Your task to perform on an android device: toggle improve location accuracy Image 0: 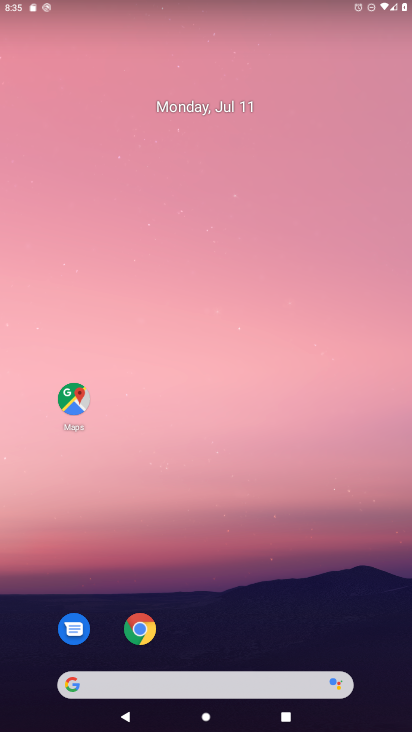
Step 0: drag from (228, 609) to (230, 73)
Your task to perform on an android device: toggle improve location accuracy Image 1: 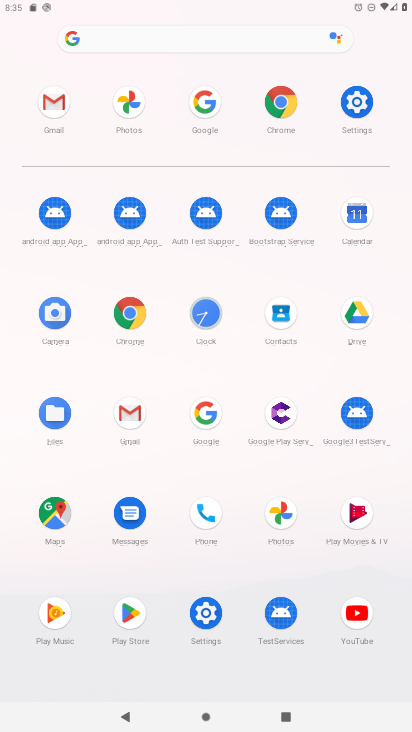
Step 1: click (359, 108)
Your task to perform on an android device: toggle improve location accuracy Image 2: 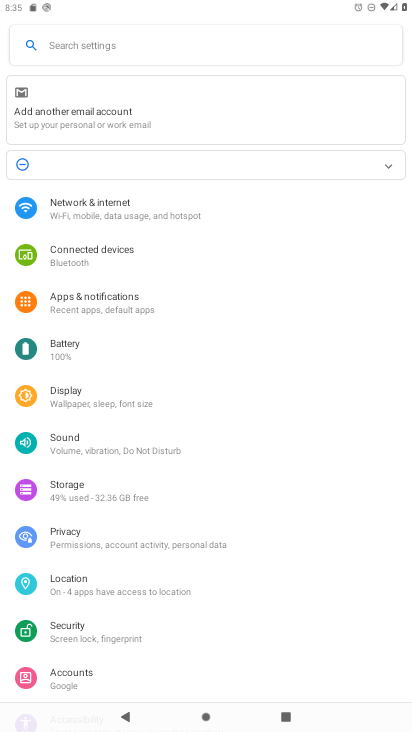
Step 2: click (83, 587)
Your task to perform on an android device: toggle improve location accuracy Image 3: 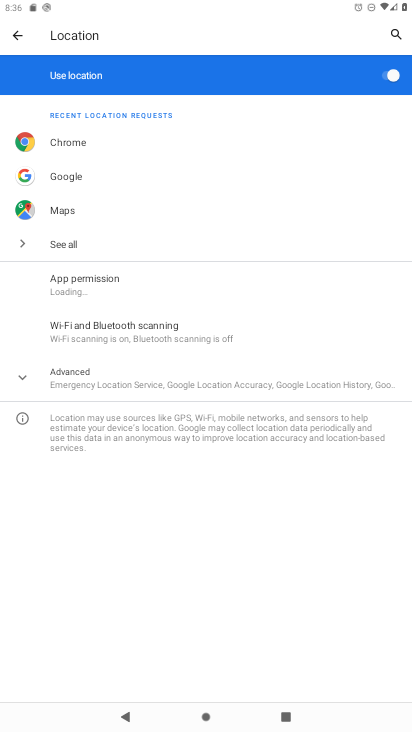
Step 3: click (96, 381)
Your task to perform on an android device: toggle improve location accuracy Image 4: 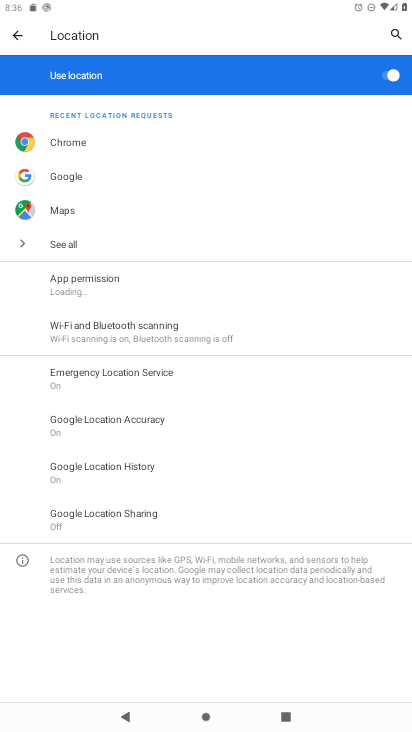
Step 4: click (158, 425)
Your task to perform on an android device: toggle improve location accuracy Image 5: 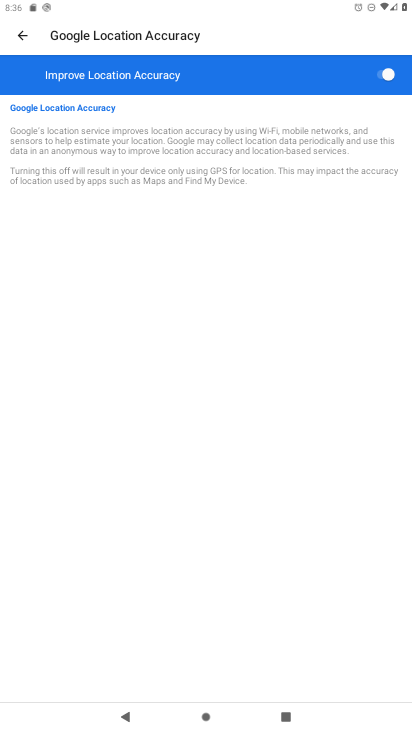
Step 5: click (387, 79)
Your task to perform on an android device: toggle improve location accuracy Image 6: 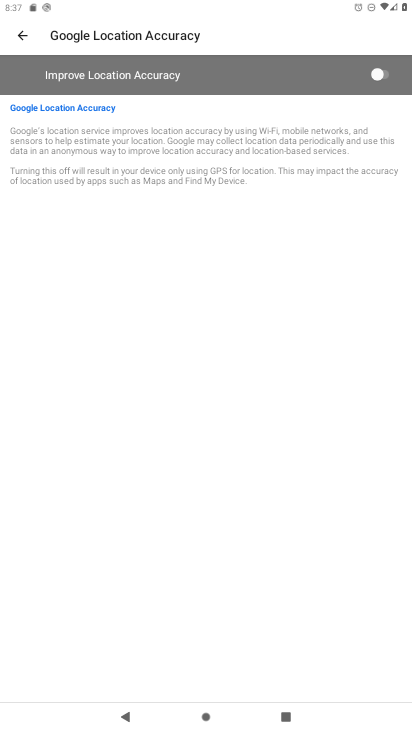
Step 6: task complete